Your task to perform on an android device: change the clock style Image 0: 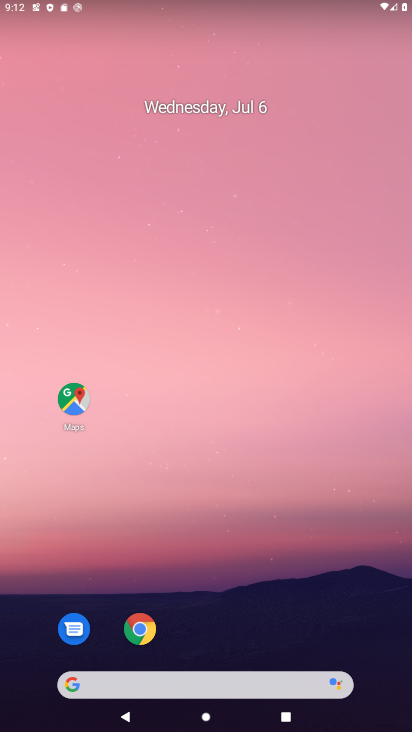
Step 0: drag from (230, 637) to (235, 100)
Your task to perform on an android device: change the clock style Image 1: 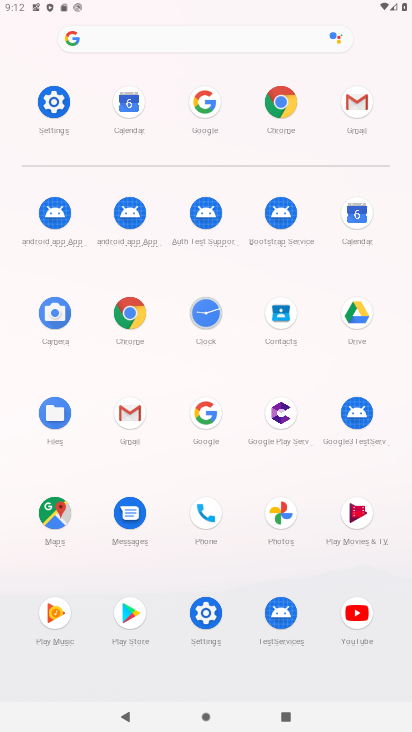
Step 1: click (197, 317)
Your task to perform on an android device: change the clock style Image 2: 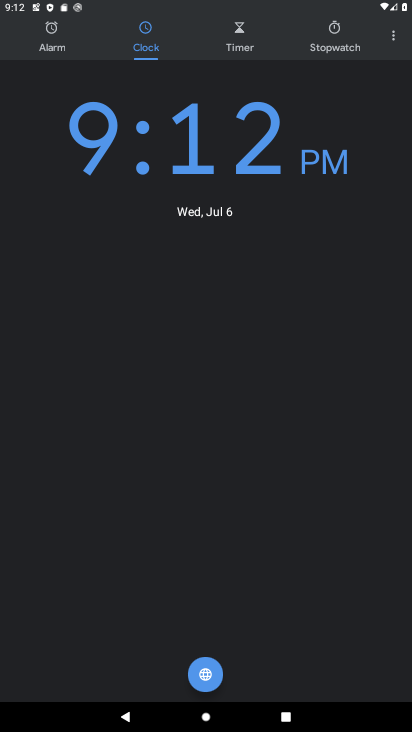
Step 2: click (389, 41)
Your task to perform on an android device: change the clock style Image 3: 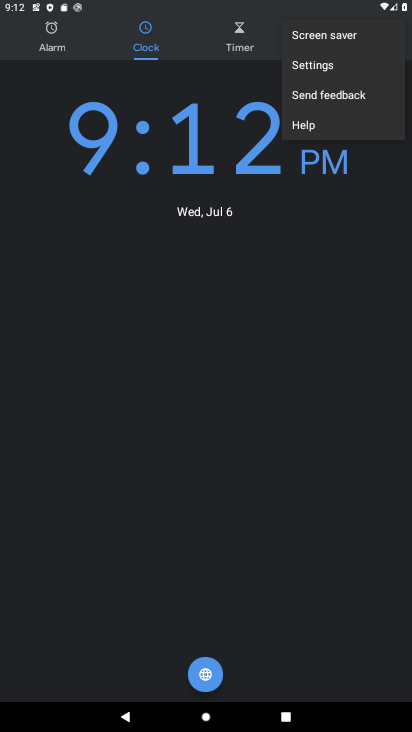
Step 3: click (298, 71)
Your task to perform on an android device: change the clock style Image 4: 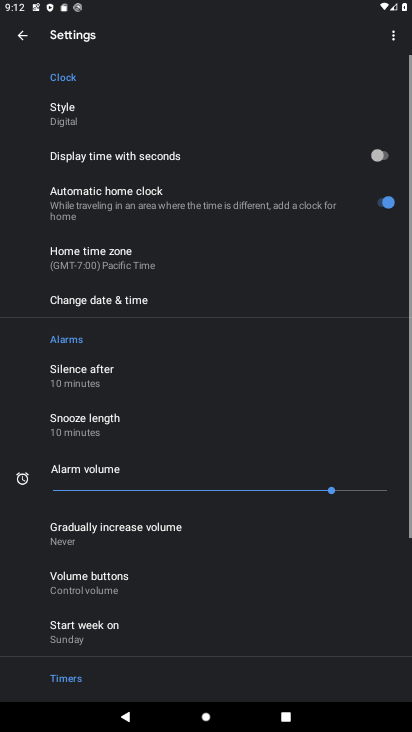
Step 4: click (81, 116)
Your task to perform on an android device: change the clock style Image 5: 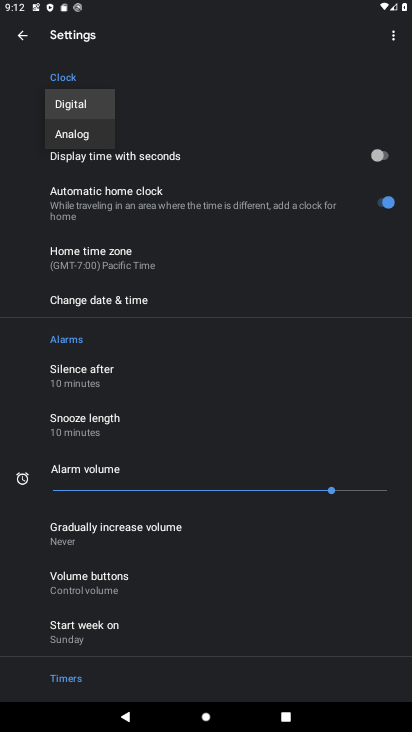
Step 5: click (93, 136)
Your task to perform on an android device: change the clock style Image 6: 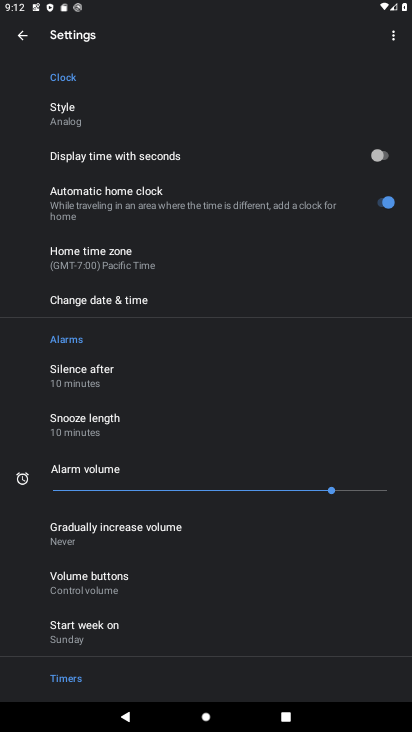
Step 6: task complete